Your task to perform on an android device: Open Google Chrome Image 0: 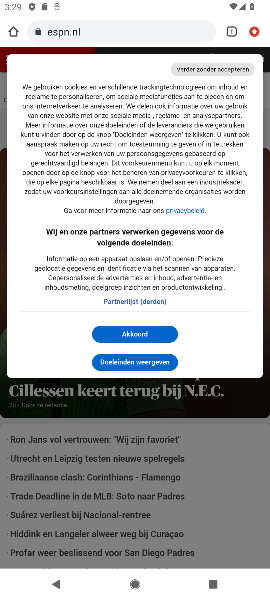
Step 0: task complete